Your task to perform on an android device: Go to eBay Image 0: 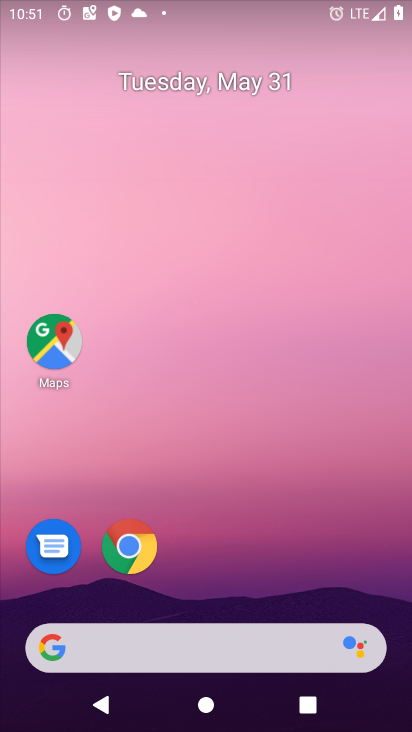
Step 0: click (129, 540)
Your task to perform on an android device: Go to eBay Image 1: 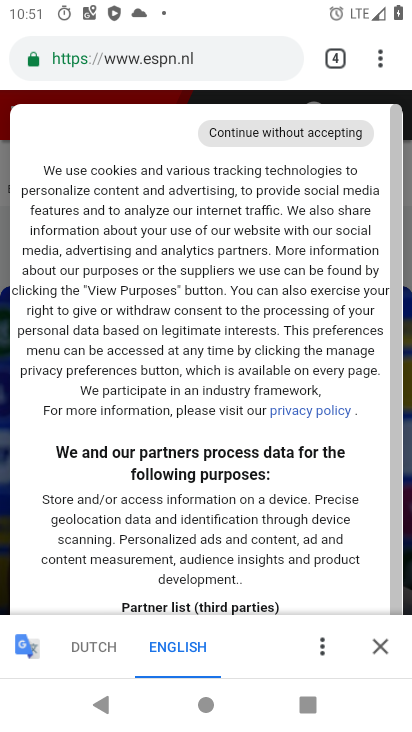
Step 1: click (333, 56)
Your task to perform on an android device: Go to eBay Image 2: 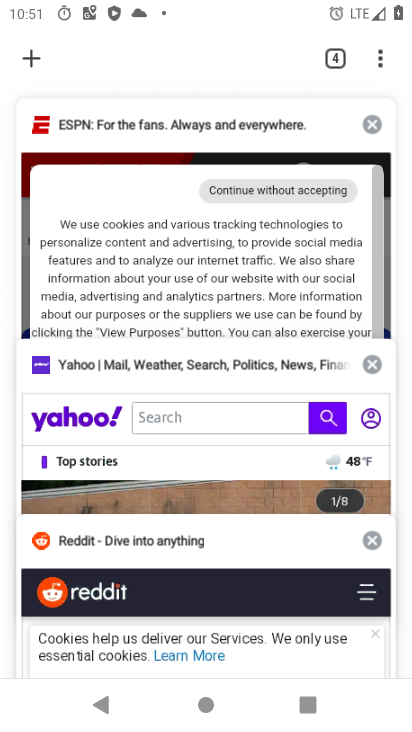
Step 2: drag from (150, 586) to (115, 283)
Your task to perform on an android device: Go to eBay Image 3: 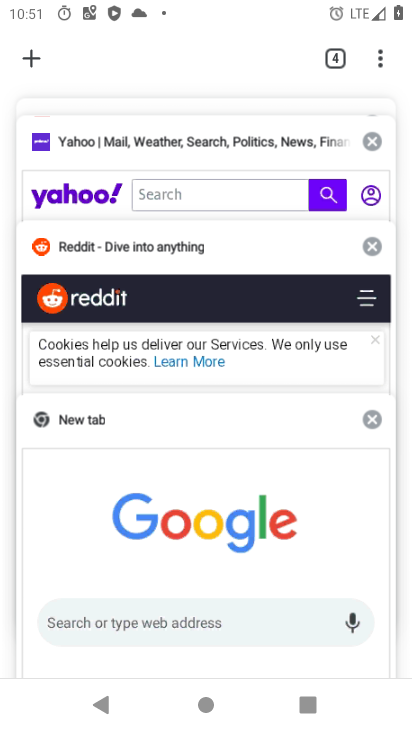
Step 3: click (95, 499)
Your task to perform on an android device: Go to eBay Image 4: 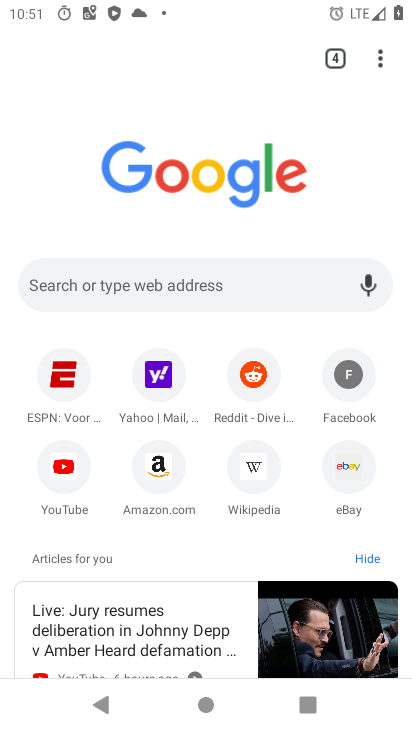
Step 4: click (93, 278)
Your task to perform on an android device: Go to eBay Image 5: 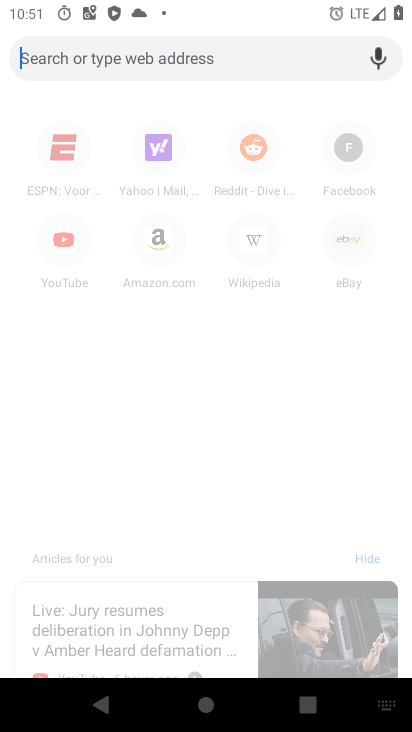
Step 5: type "ebay.com"
Your task to perform on an android device: Go to eBay Image 6: 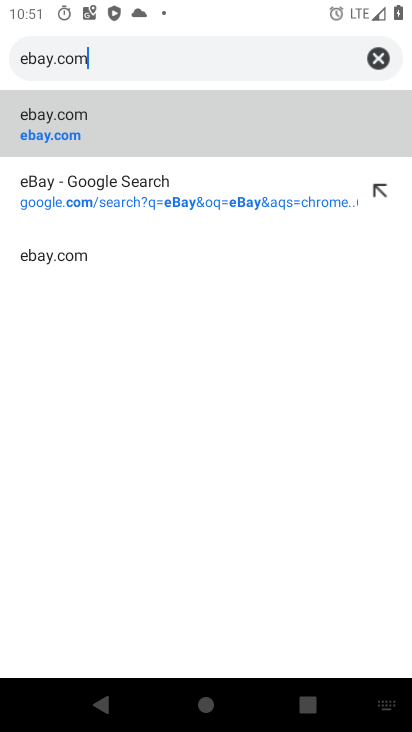
Step 6: click (121, 125)
Your task to perform on an android device: Go to eBay Image 7: 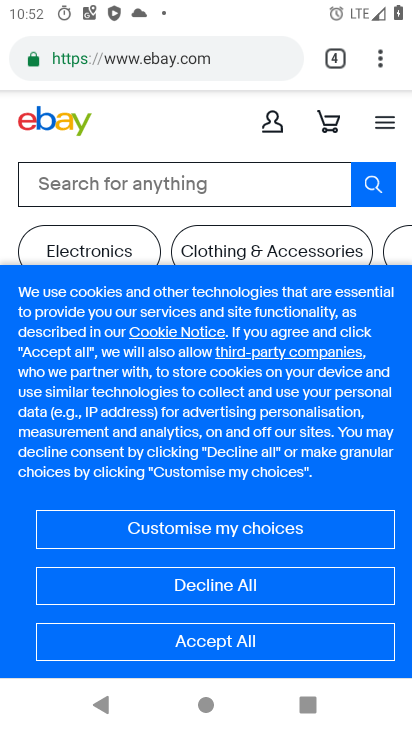
Step 7: task complete